Your task to perform on an android device: show emergency info Image 0: 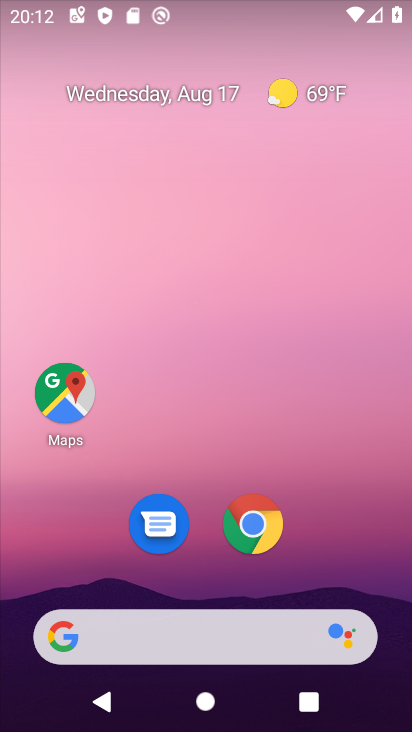
Step 0: drag from (321, 552) to (361, 33)
Your task to perform on an android device: show emergency info Image 1: 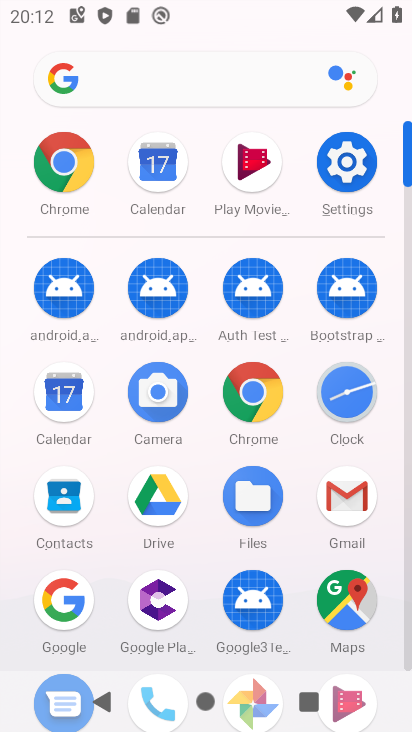
Step 1: click (346, 167)
Your task to perform on an android device: show emergency info Image 2: 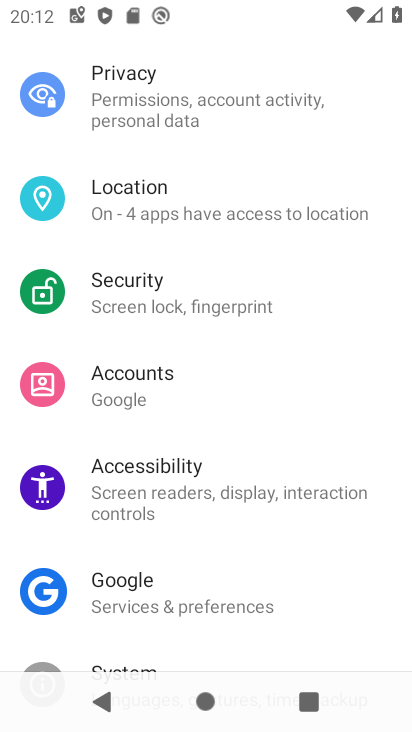
Step 2: drag from (214, 588) to (244, 422)
Your task to perform on an android device: show emergency info Image 3: 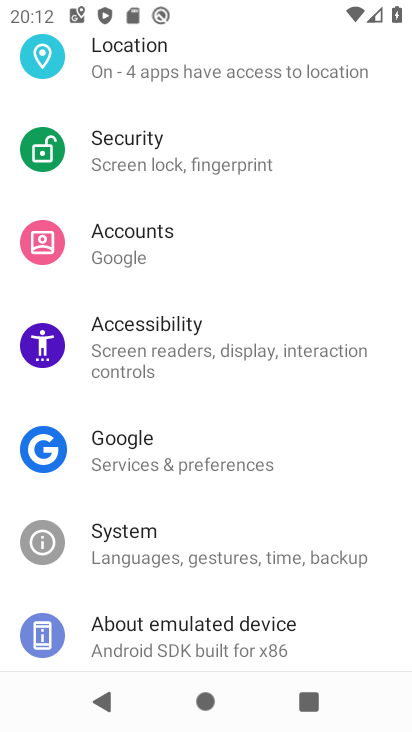
Step 3: click (216, 625)
Your task to perform on an android device: show emergency info Image 4: 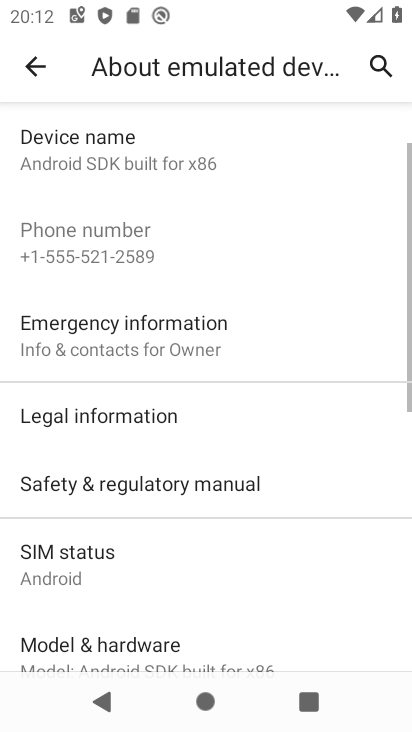
Step 4: click (209, 338)
Your task to perform on an android device: show emergency info Image 5: 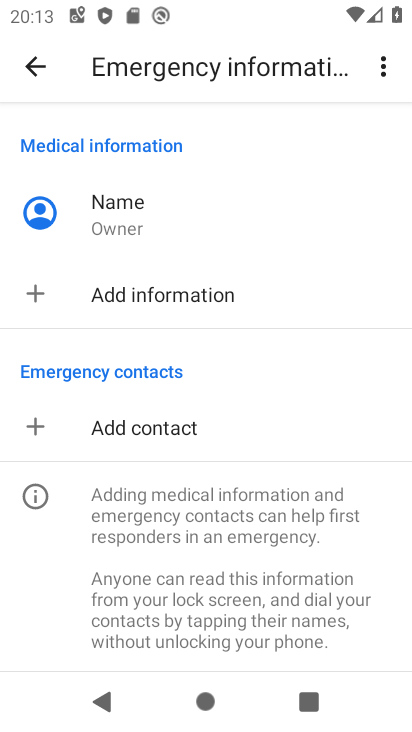
Step 5: task complete